Your task to perform on an android device: check the backup settings in the google photos Image 0: 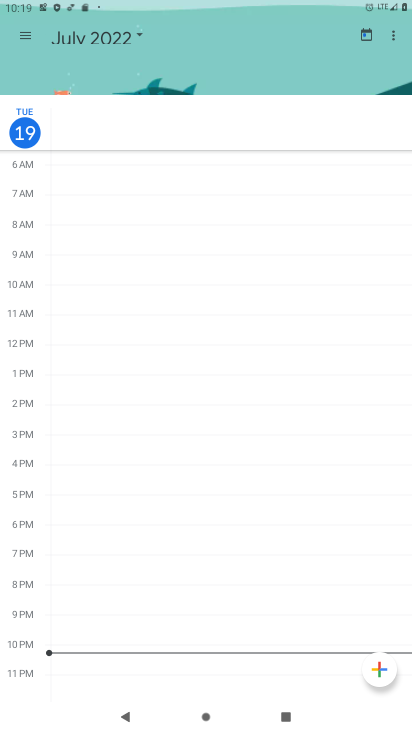
Step 0: press home button
Your task to perform on an android device: check the backup settings in the google photos Image 1: 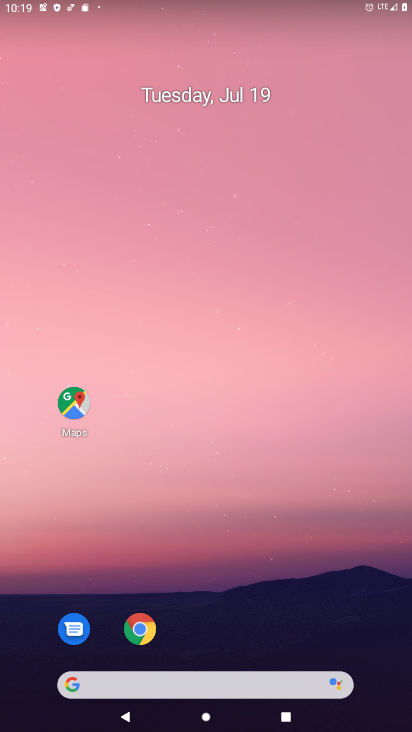
Step 1: drag from (211, 615) to (215, 2)
Your task to perform on an android device: check the backup settings in the google photos Image 2: 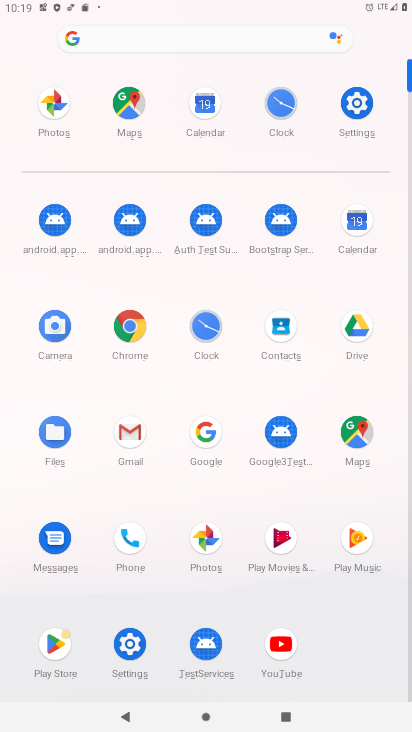
Step 2: click (200, 543)
Your task to perform on an android device: check the backup settings in the google photos Image 3: 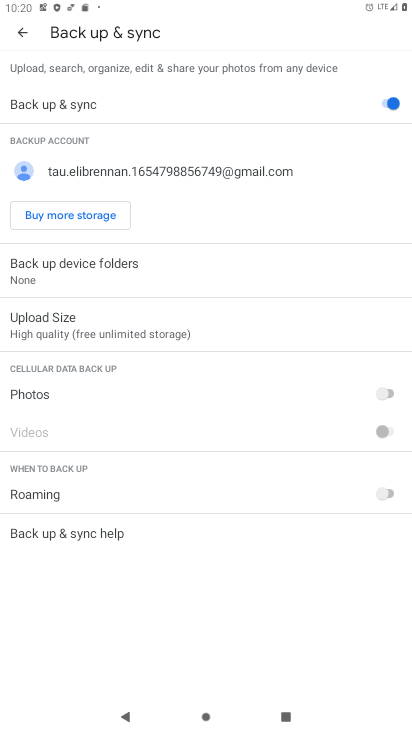
Step 3: task complete